Your task to perform on an android device: Open Google Maps Image 0: 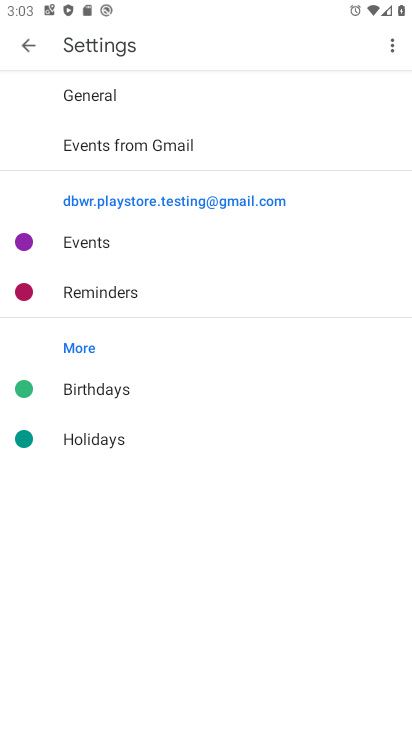
Step 0: press home button
Your task to perform on an android device: Open Google Maps Image 1: 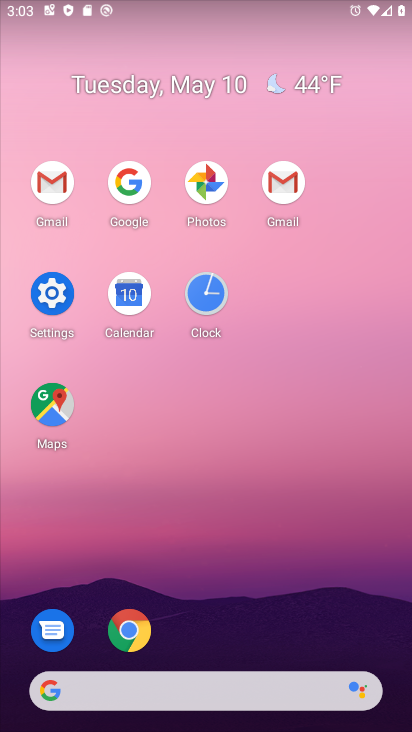
Step 1: click (39, 422)
Your task to perform on an android device: Open Google Maps Image 2: 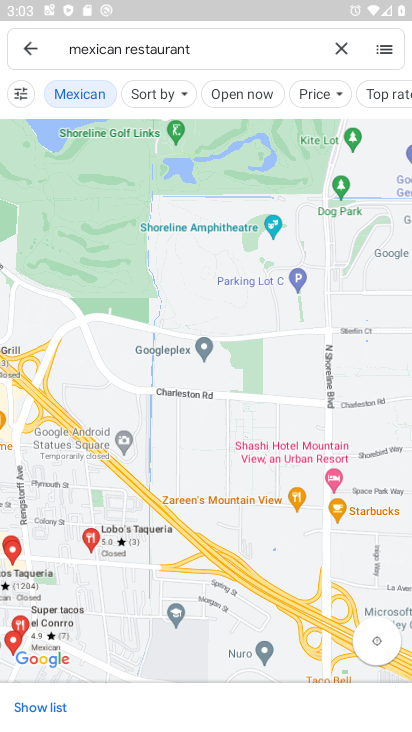
Step 2: task complete